Your task to perform on an android device: Go to network settings Image 0: 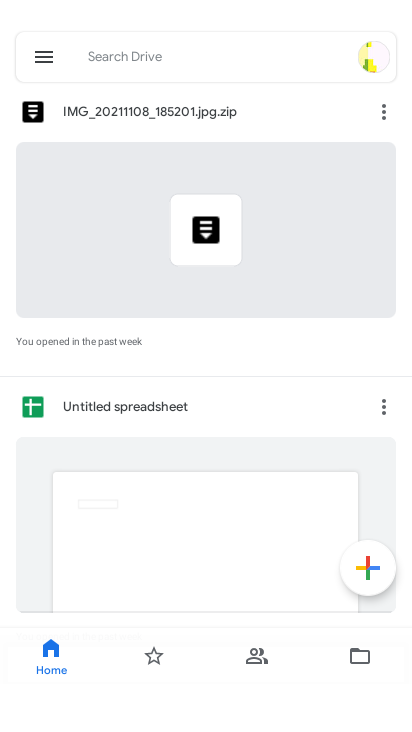
Step 0: press home button
Your task to perform on an android device: Go to network settings Image 1: 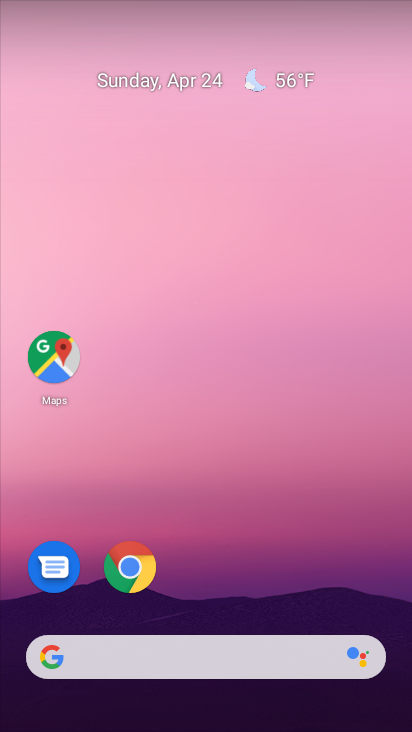
Step 1: drag from (389, 534) to (376, 229)
Your task to perform on an android device: Go to network settings Image 2: 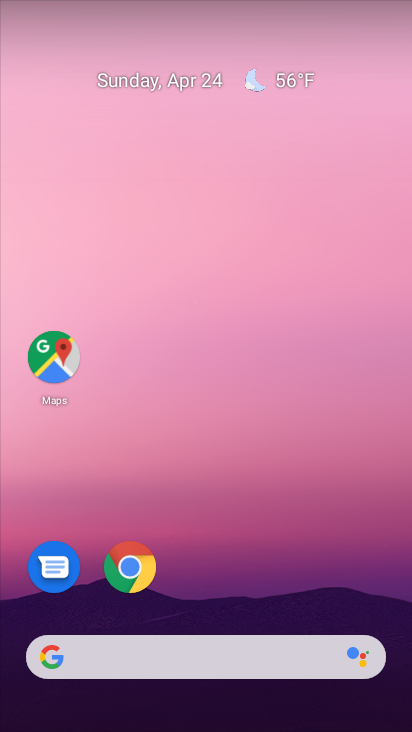
Step 2: drag from (390, 597) to (361, 193)
Your task to perform on an android device: Go to network settings Image 3: 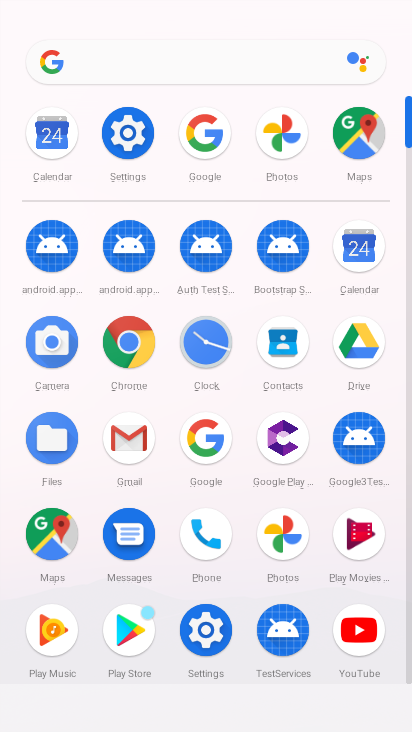
Step 3: click (119, 134)
Your task to perform on an android device: Go to network settings Image 4: 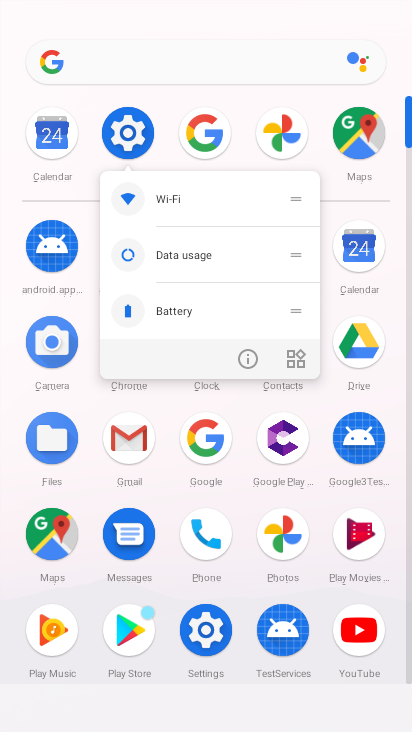
Step 4: click (119, 135)
Your task to perform on an android device: Go to network settings Image 5: 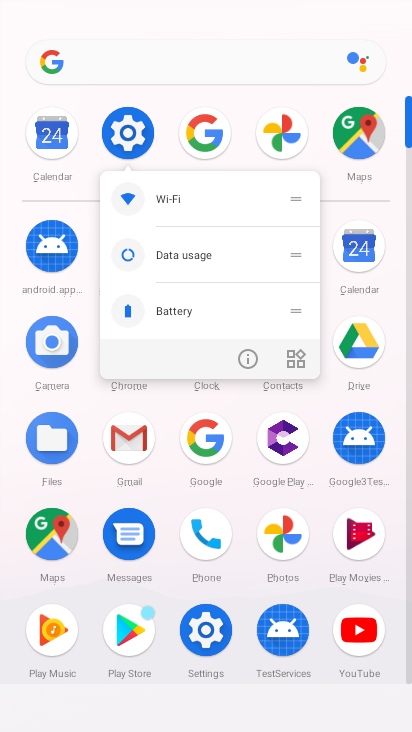
Step 5: click (119, 135)
Your task to perform on an android device: Go to network settings Image 6: 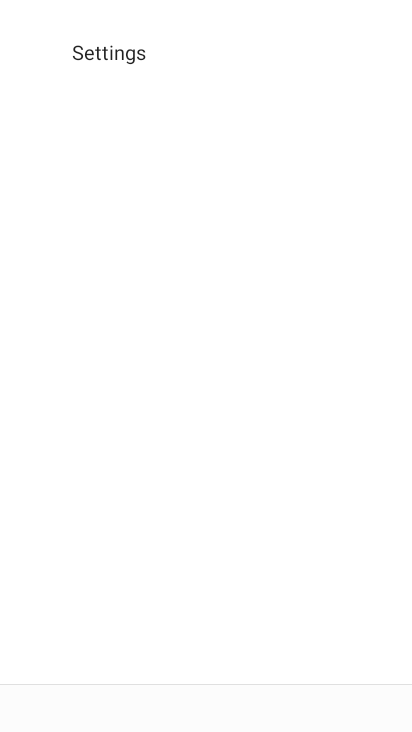
Step 6: click (119, 135)
Your task to perform on an android device: Go to network settings Image 7: 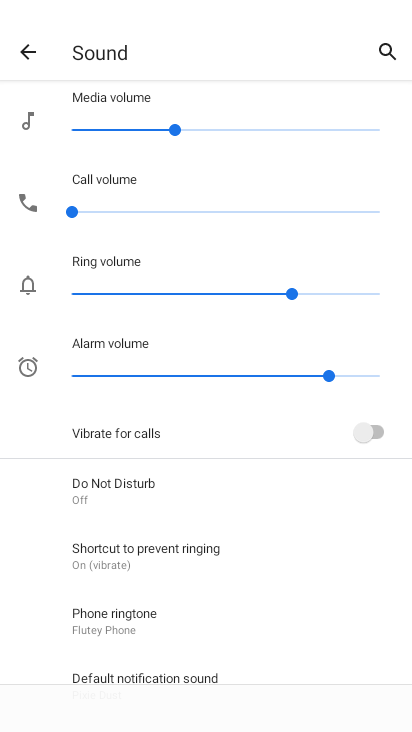
Step 7: click (24, 50)
Your task to perform on an android device: Go to network settings Image 8: 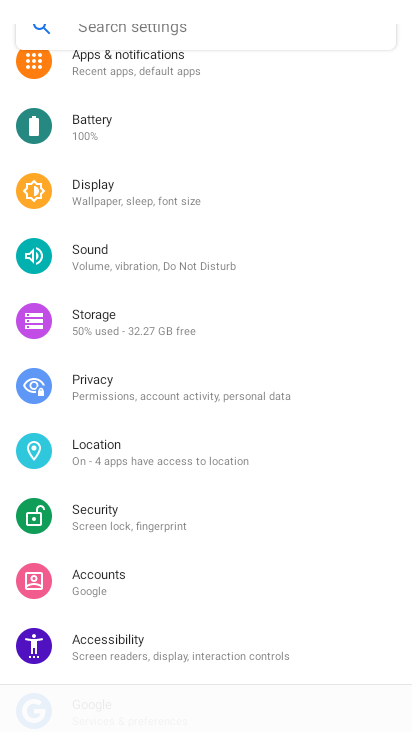
Step 8: drag from (339, 114) to (332, 509)
Your task to perform on an android device: Go to network settings Image 9: 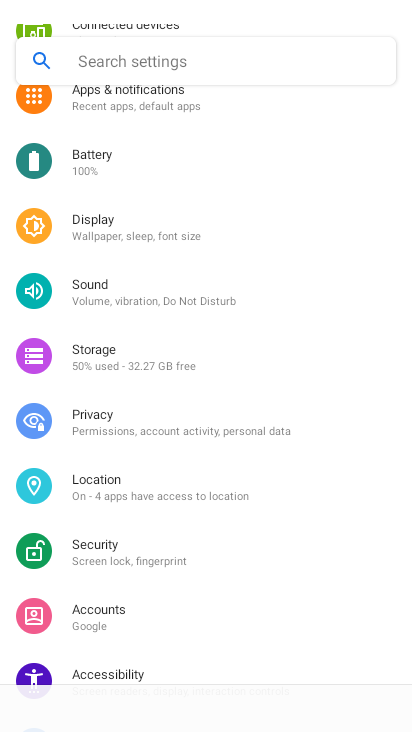
Step 9: drag from (368, 455) to (384, 600)
Your task to perform on an android device: Go to network settings Image 10: 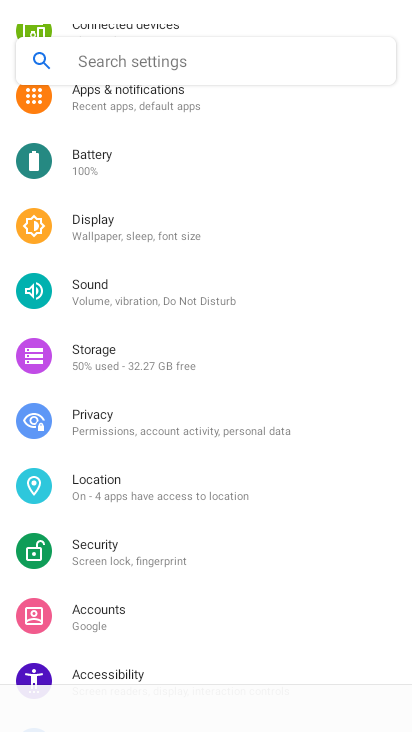
Step 10: drag from (388, 623) to (389, 667)
Your task to perform on an android device: Go to network settings Image 11: 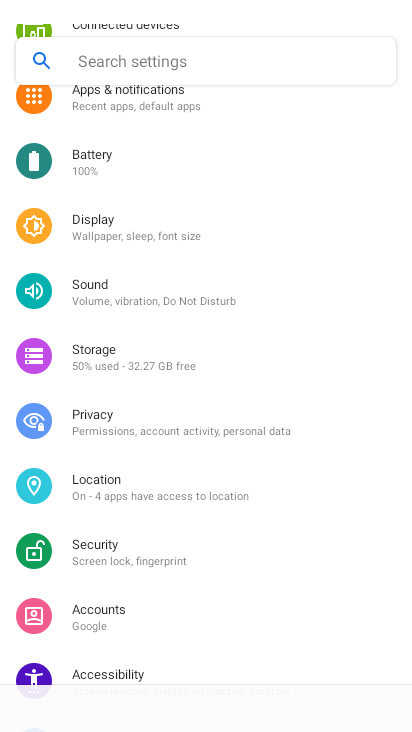
Step 11: click (392, 699)
Your task to perform on an android device: Go to network settings Image 12: 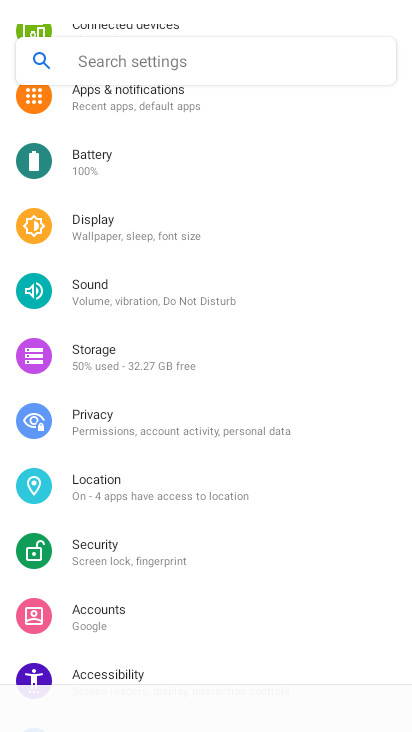
Step 12: drag from (353, 231) to (374, 480)
Your task to perform on an android device: Go to network settings Image 13: 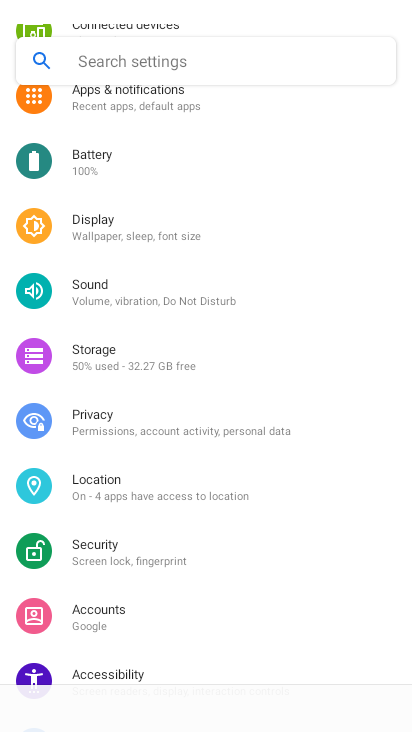
Step 13: click (339, 605)
Your task to perform on an android device: Go to network settings Image 14: 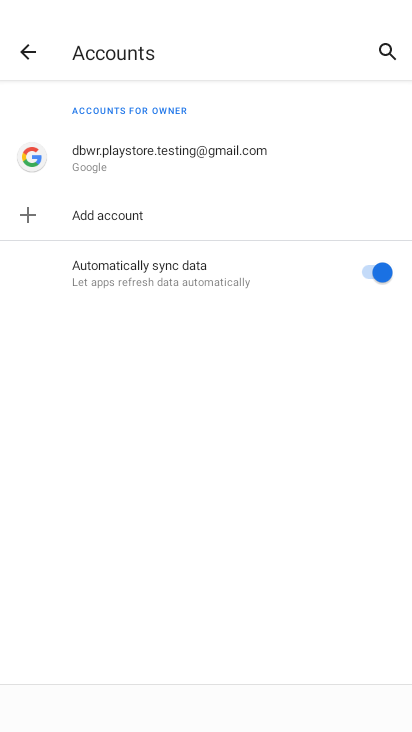
Step 14: click (30, 49)
Your task to perform on an android device: Go to network settings Image 15: 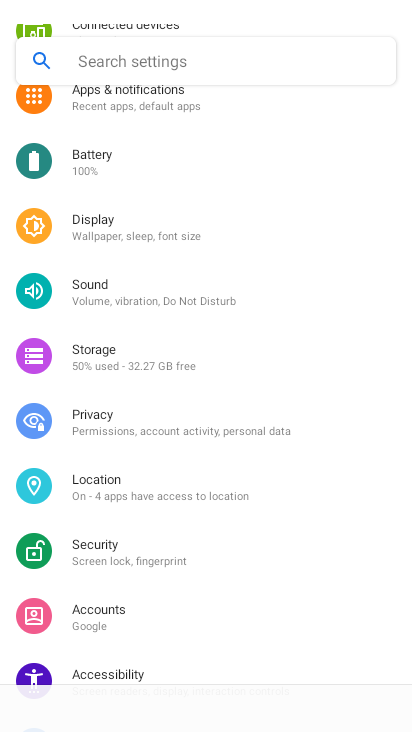
Step 15: drag from (350, 432) to (345, 644)
Your task to perform on an android device: Go to network settings Image 16: 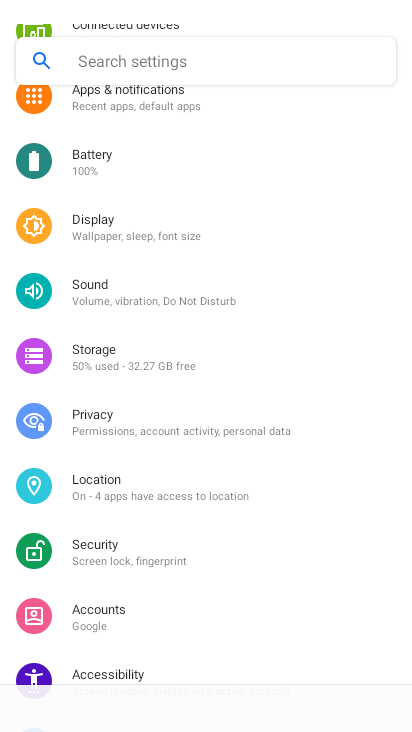
Step 16: drag from (315, 120) to (335, 559)
Your task to perform on an android device: Go to network settings Image 17: 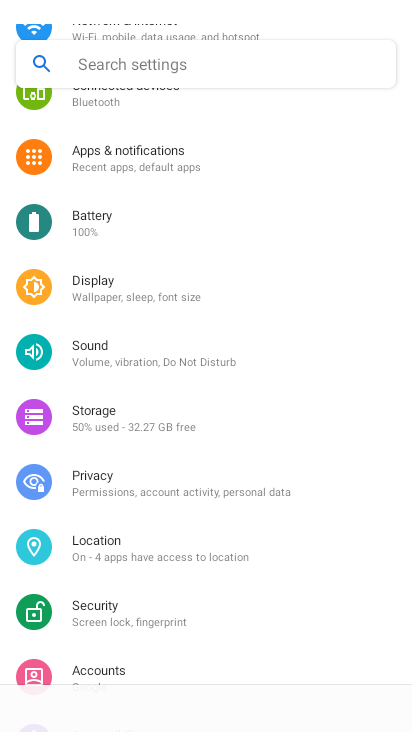
Step 17: click (333, 658)
Your task to perform on an android device: Go to network settings Image 18: 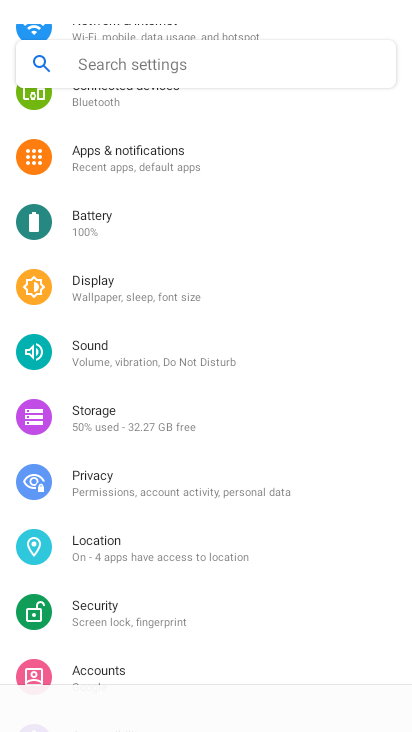
Step 18: click (355, 585)
Your task to perform on an android device: Go to network settings Image 19: 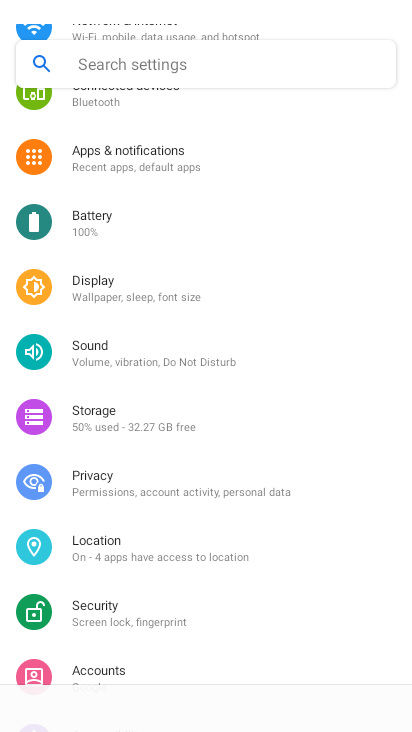
Step 19: drag from (351, 335) to (327, 687)
Your task to perform on an android device: Go to network settings Image 20: 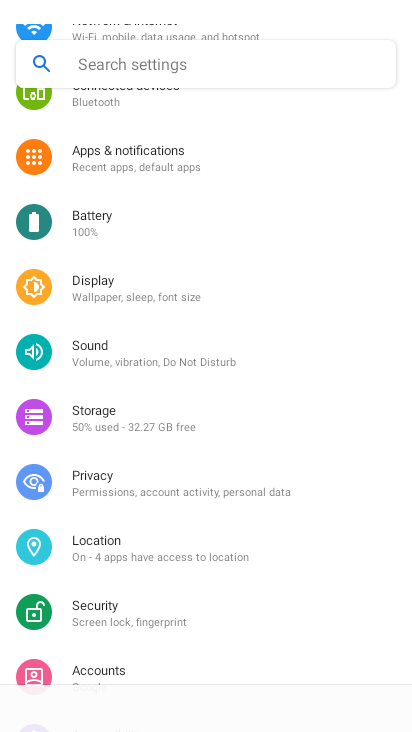
Step 20: click (319, 562)
Your task to perform on an android device: Go to network settings Image 21: 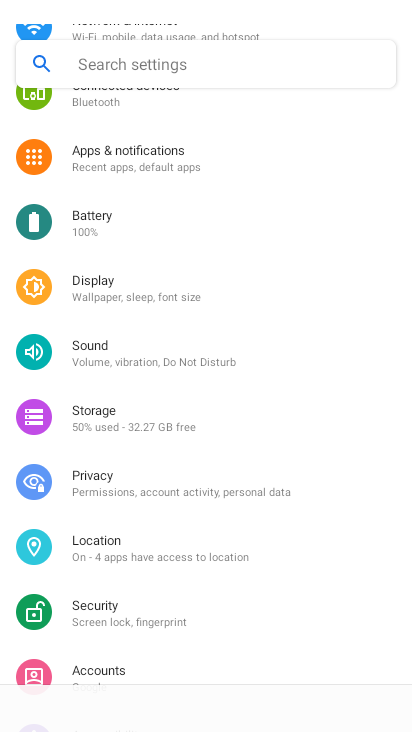
Step 21: click (123, 25)
Your task to perform on an android device: Go to network settings Image 22: 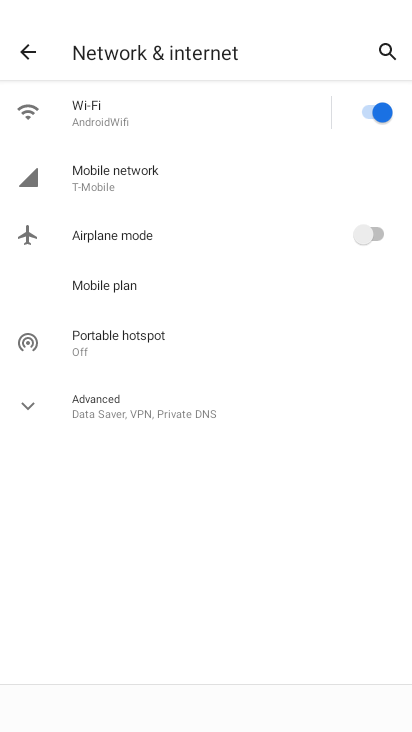
Step 22: task complete